Your task to perform on an android device: turn on bluetooth scan Image 0: 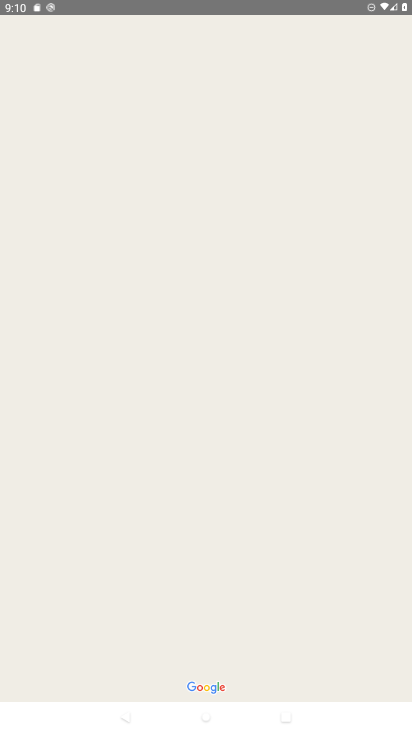
Step 0: press home button
Your task to perform on an android device: turn on bluetooth scan Image 1: 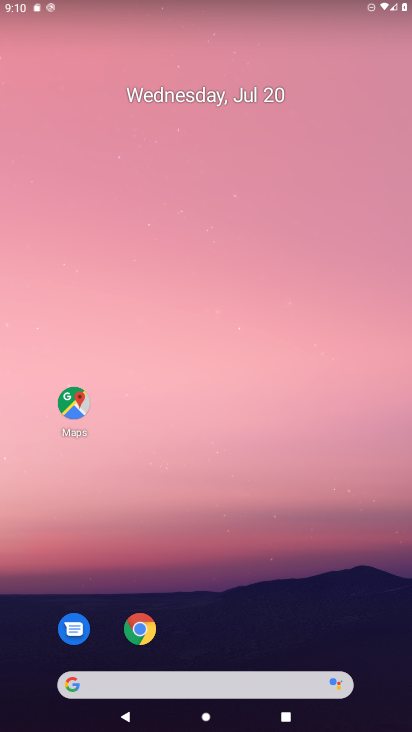
Step 1: drag from (393, 640) to (362, 78)
Your task to perform on an android device: turn on bluetooth scan Image 2: 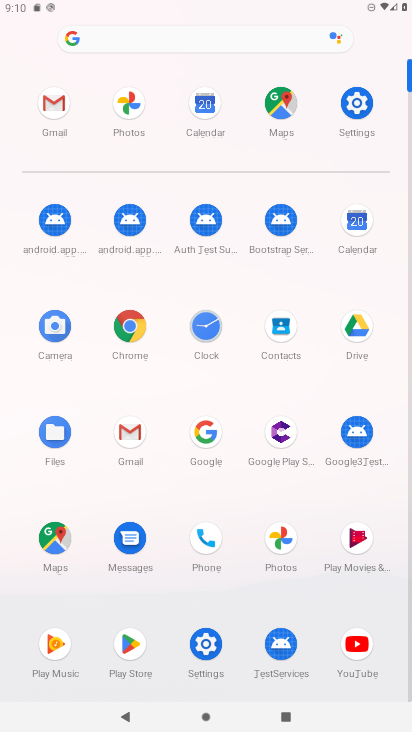
Step 2: click (205, 644)
Your task to perform on an android device: turn on bluetooth scan Image 3: 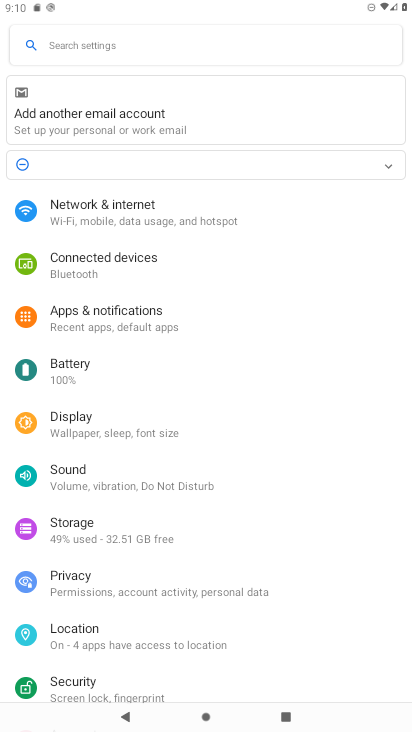
Step 3: click (87, 633)
Your task to perform on an android device: turn on bluetooth scan Image 4: 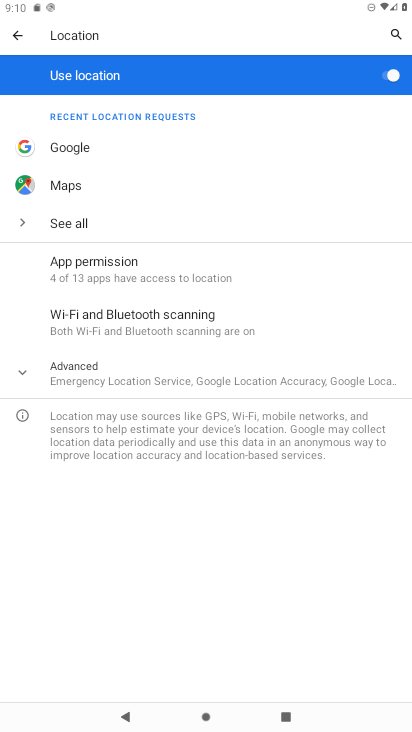
Step 4: click (116, 322)
Your task to perform on an android device: turn on bluetooth scan Image 5: 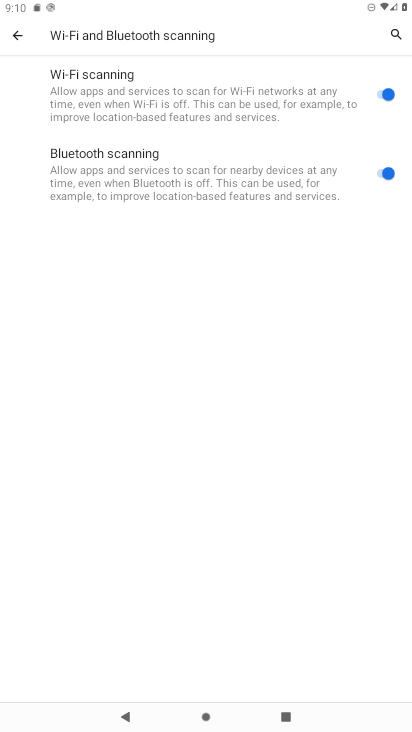
Step 5: task complete